Your task to perform on an android device: delete location history Image 0: 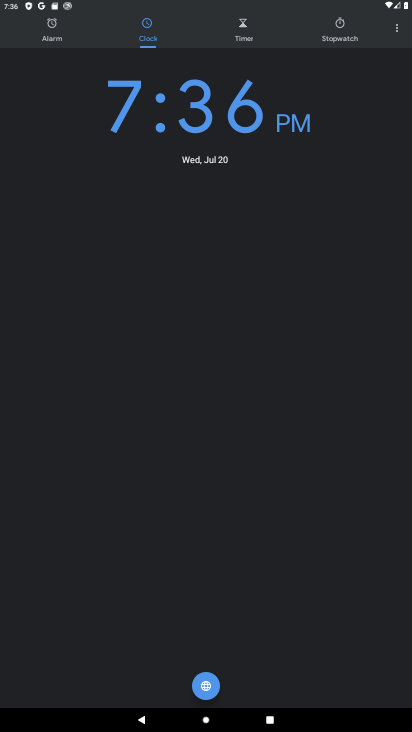
Step 0: press home button
Your task to perform on an android device: delete location history Image 1: 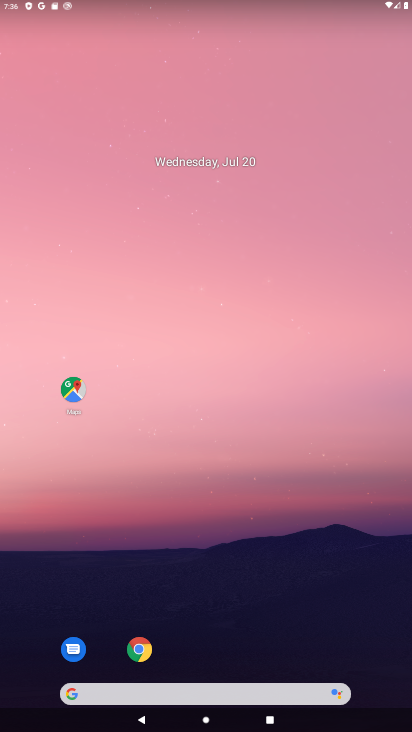
Step 1: drag from (223, 660) to (61, 77)
Your task to perform on an android device: delete location history Image 2: 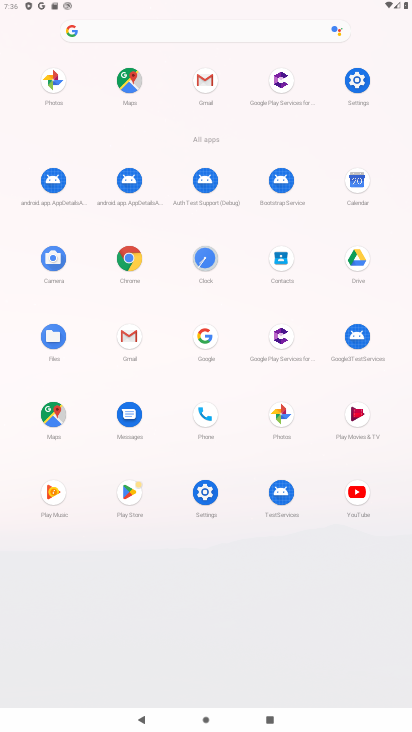
Step 2: click (201, 481)
Your task to perform on an android device: delete location history Image 3: 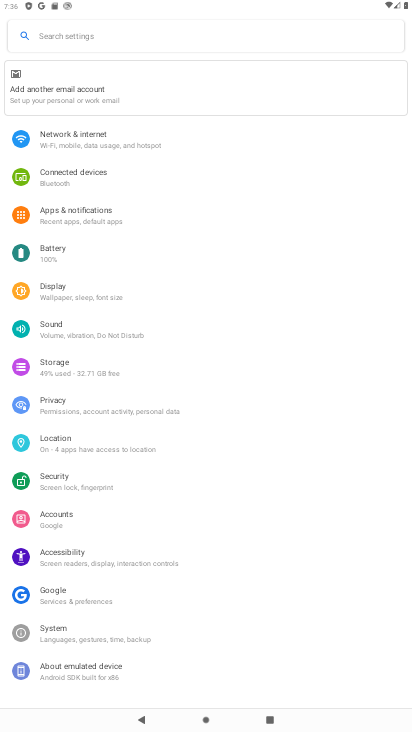
Step 3: press home button
Your task to perform on an android device: delete location history Image 4: 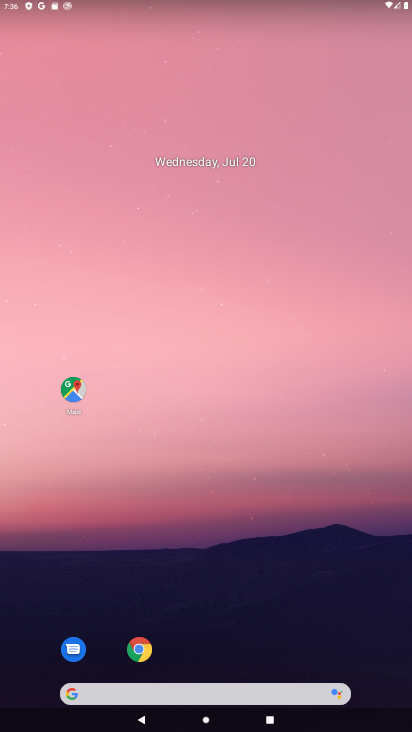
Step 4: click (69, 388)
Your task to perform on an android device: delete location history Image 5: 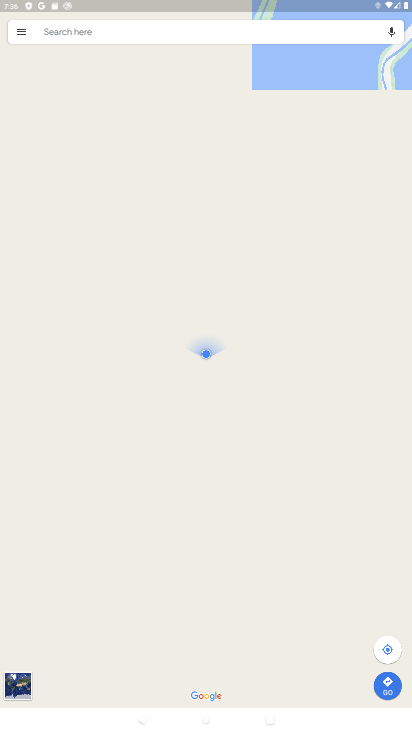
Step 5: click (23, 31)
Your task to perform on an android device: delete location history Image 6: 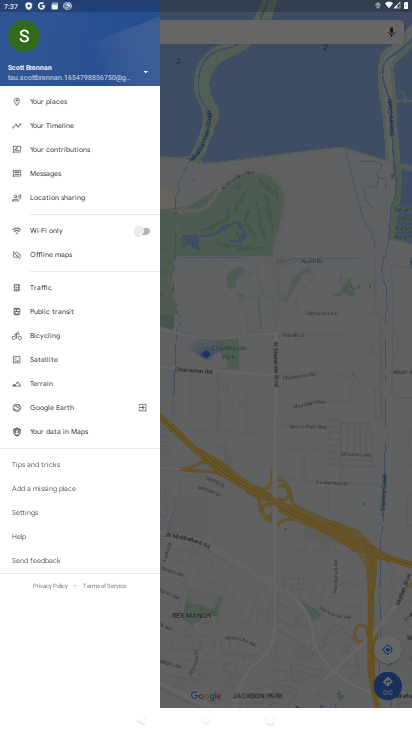
Step 6: click (34, 120)
Your task to perform on an android device: delete location history Image 7: 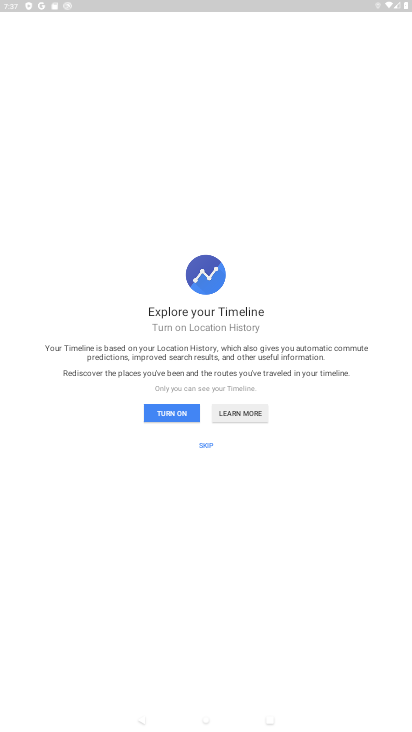
Step 7: click (200, 450)
Your task to perform on an android device: delete location history Image 8: 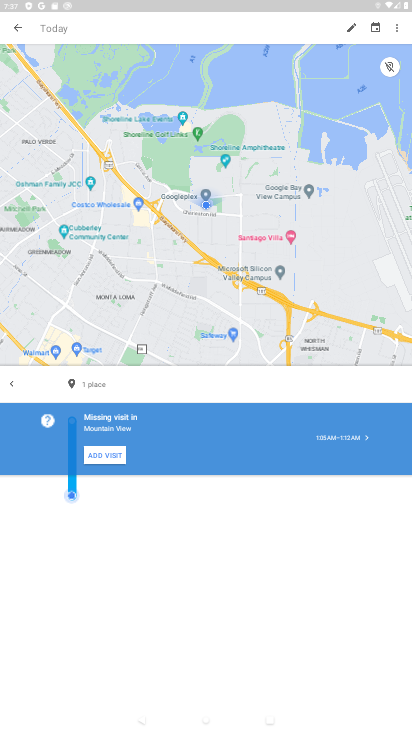
Step 8: click (391, 25)
Your task to perform on an android device: delete location history Image 9: 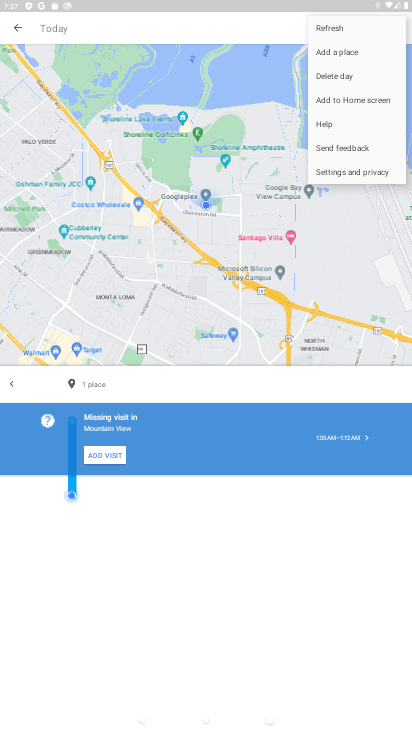
Step 9: click (349, 175)
Your task to perform on an android device: delete location history Image 10: 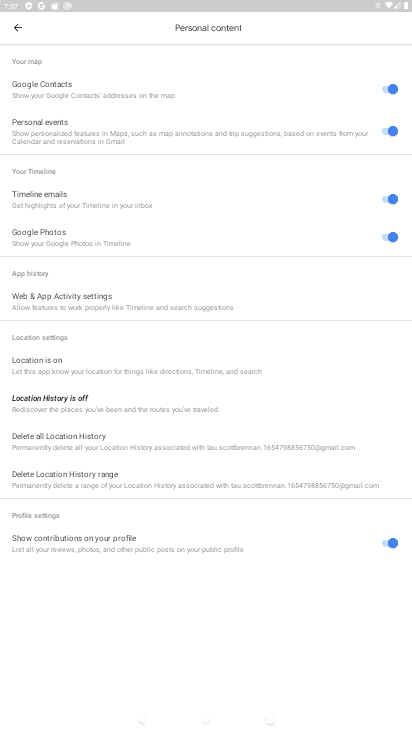
Step 10: click (61, 452)
Your task to perform on an android device: delete location history Image 11: 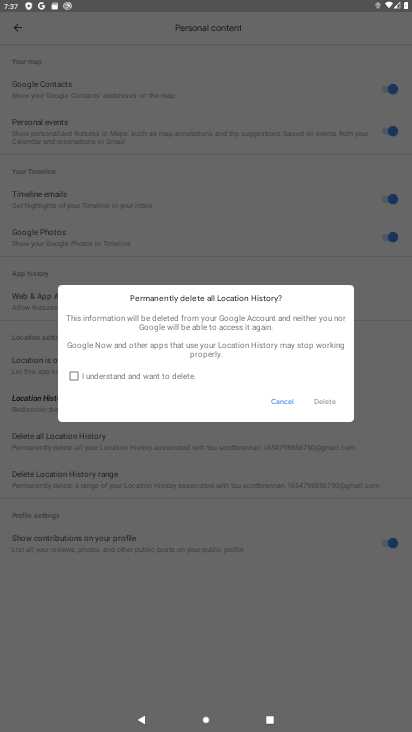
Step 11: click (69, 378)
Your task to perform on an android device: delete location history Image 12: 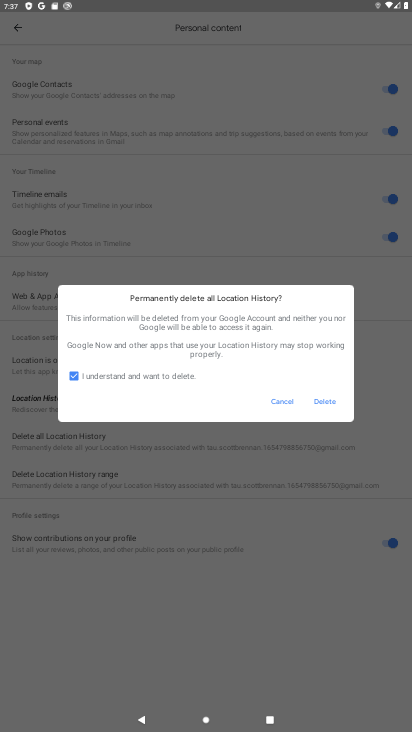
Step 12: click (327, 400)
Your task to perform on an android device: delete location history Image 13: 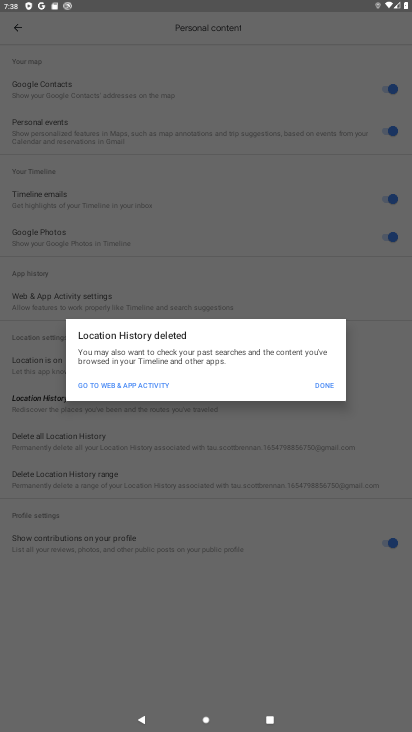
Step 13: click (322, 382)
Your task to perform on an android device: delete location history Image 14: 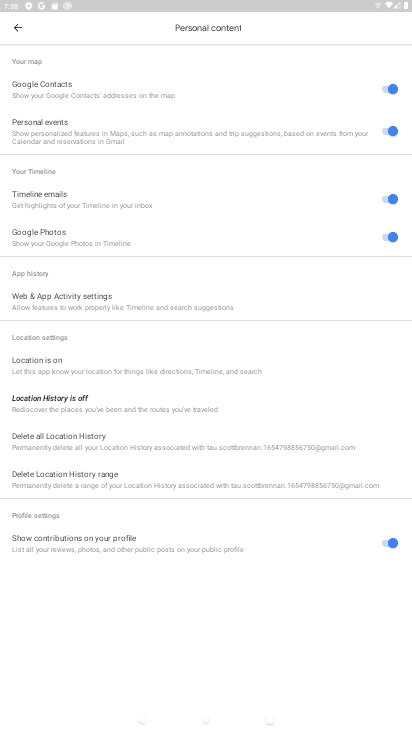
Step 14: task complete